Your task to perform on an android device: snooze an email in the gmail app Image 0: 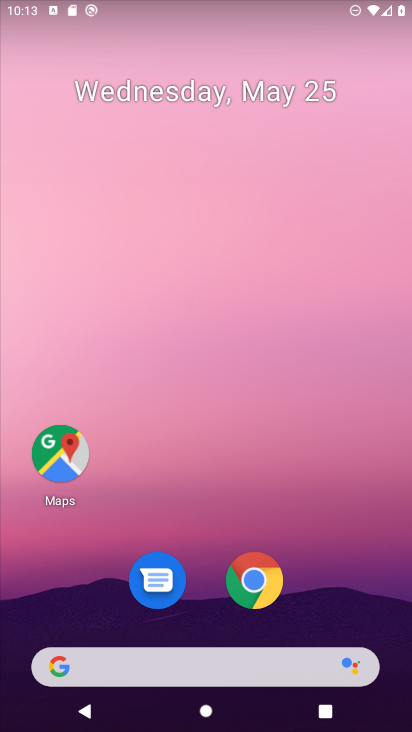
Step 0: drag from (109, 326) to (230, 100)
Your task to perform on an android device: snooze an email in the gmail app Image 1: 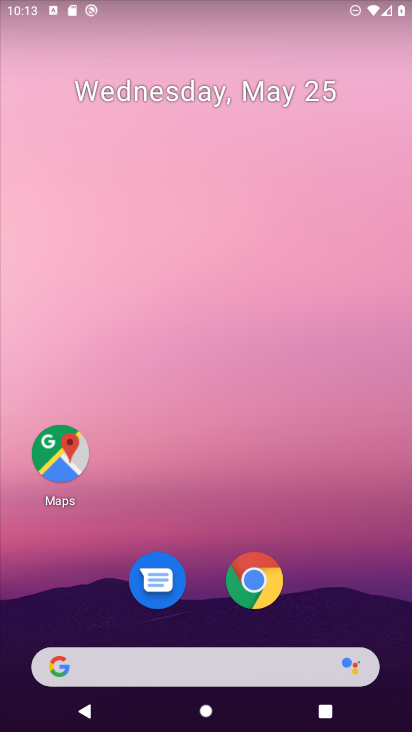
Step 1: drag from (26, 562) to (175, 123)
Your task to perform on an android device: snooze an email in the gmail app Image 2: 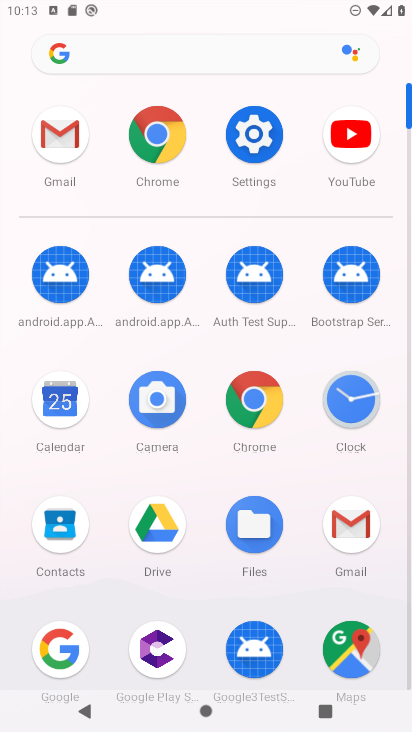
Step 2: click (357, 516)
Your task to perform on an android device: snooze an email in the gmail app Image 3: 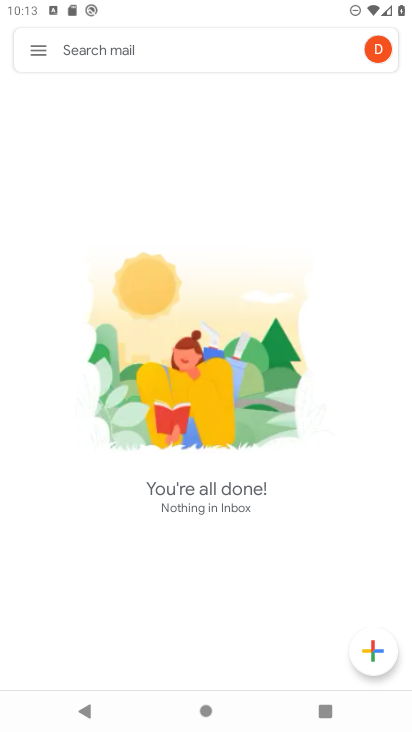
Step 3: click (30, 54)
Your task to perform on an android device: snooze an email in the gmail app Image 4: 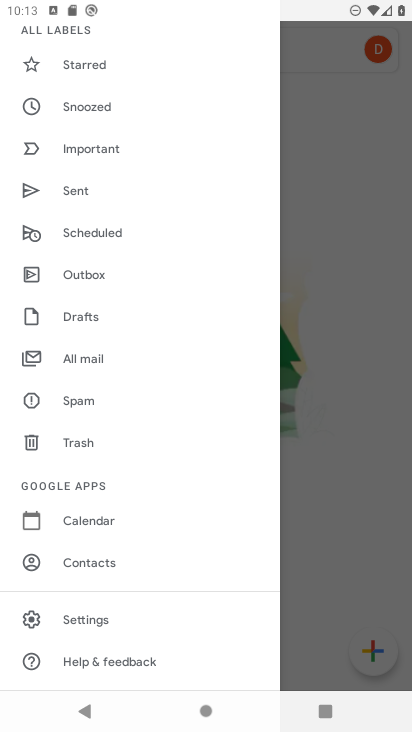
Step 4: click (61, 106)
Your task to perform on an android device: snooze an email in the gmail app Image 5: 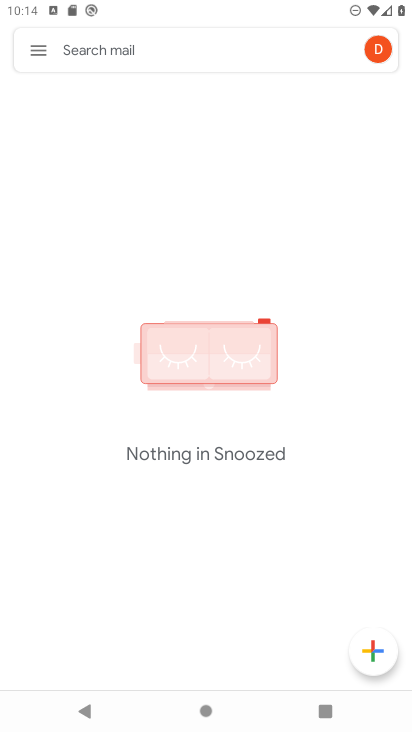
Step 5: task complete